Your task to perform on an android device: Show me productivity apps on the Play Store Image 0: 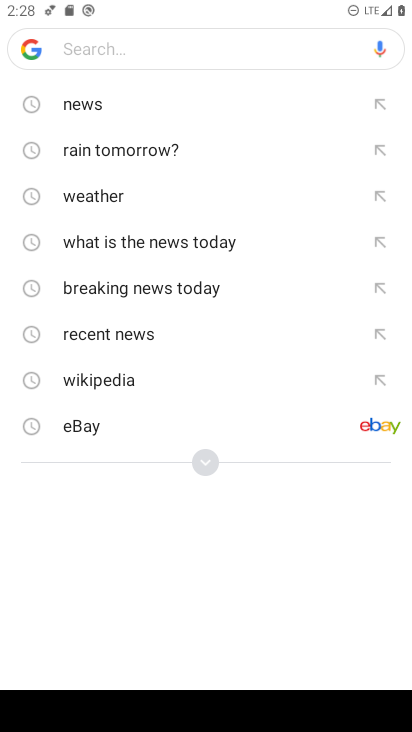
Step 0: press home button
Your task to perform on an android device: Show me productivity apps on the Play Store Image 1: 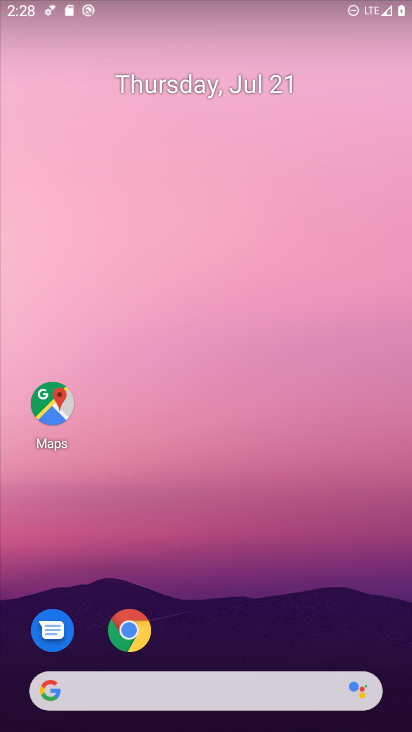
Step 1: drag from (301, 580) to (204, 0)
Your task to perform on an android device: Show me productivity apps on the Play Store Image 2: 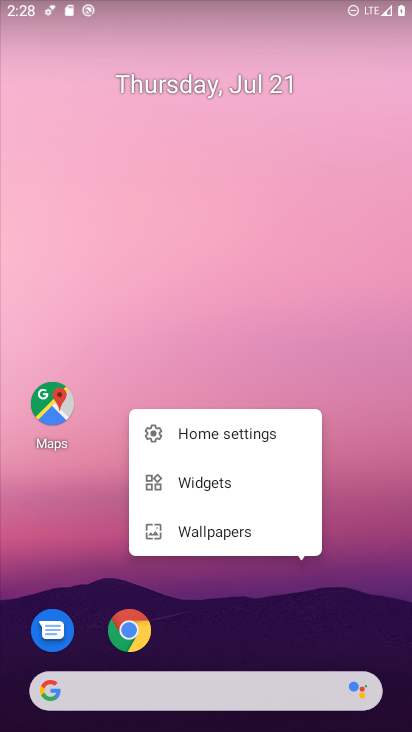
Step 2: drag from (297, 355) to (218, 34)
Your task to perform on an android device: Show me productivity apps on the Play Store Image 3: 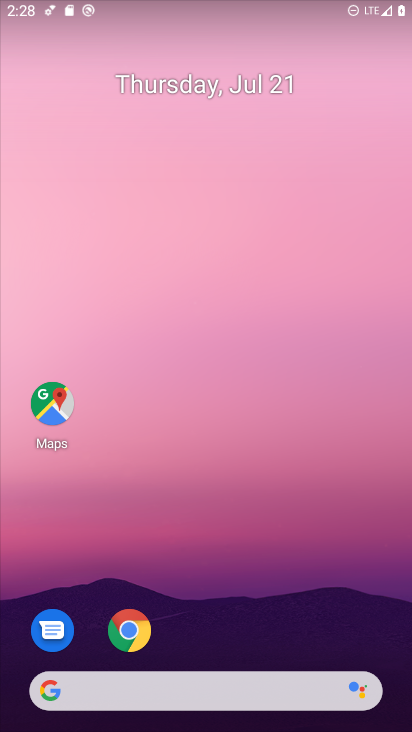
Step 3: drag from (345, 656) to (295, 269)
Your task to perform on an android device: Show me productivity apps on the Play Store Image 4: 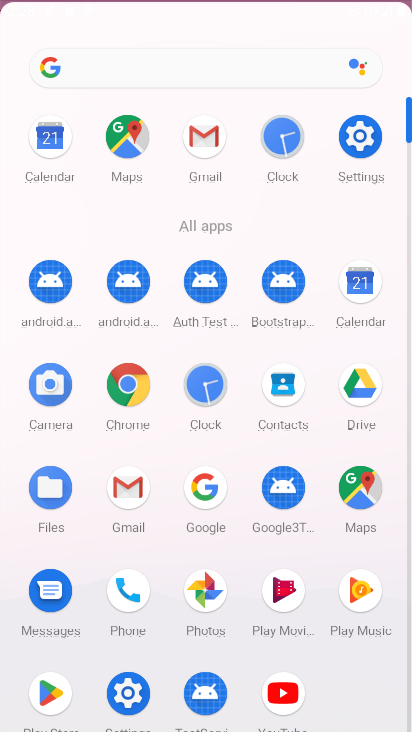
Step 4: drag from (228, 672) to (292, 87)
Your task to perform on an android device: Show me productivity apps on the Play Store Image 5: 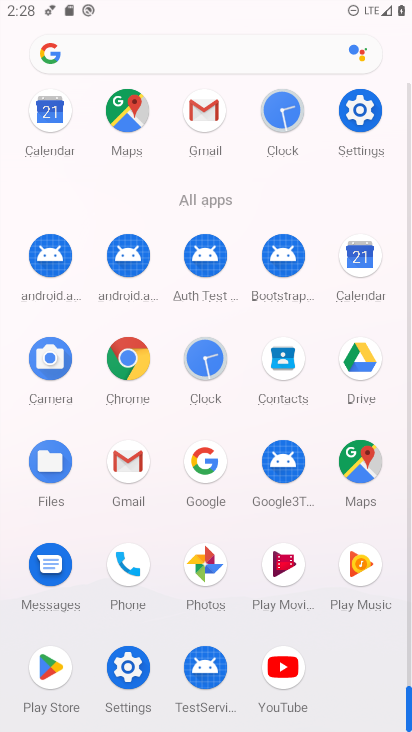
Step 5: click (39, 676)
Your task to perform on an android device: Show me productivity apps on the Play Store Image 6: 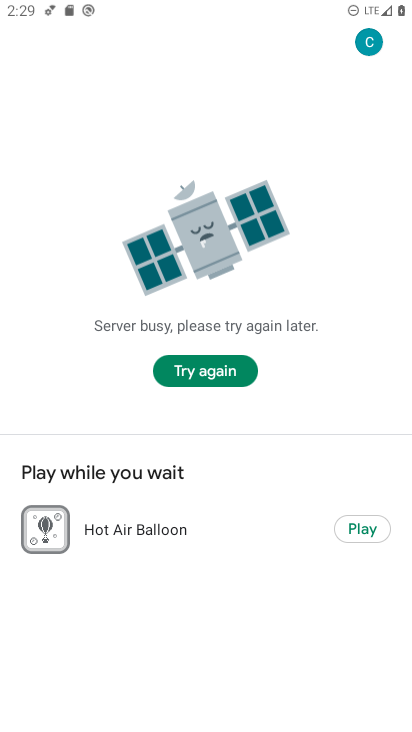
Step 6: click (223, 373)
Your task to perform on an android device: Show me productivity apps on the Play Store Image 7: 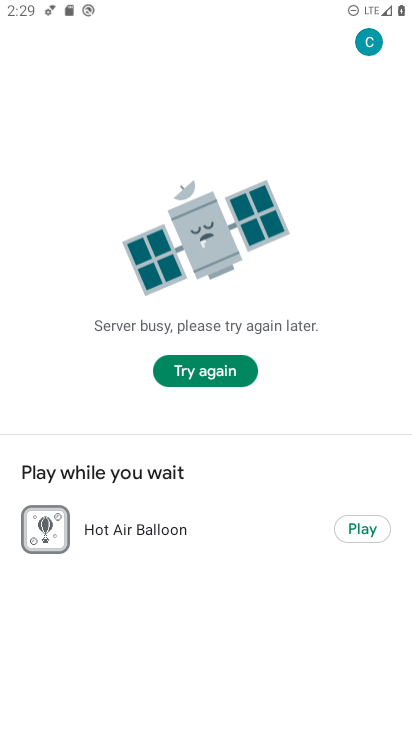
Step 7: click (219, 372)
Your task to perform on an android device: Show me productivity apps on the Play Store Image 8: 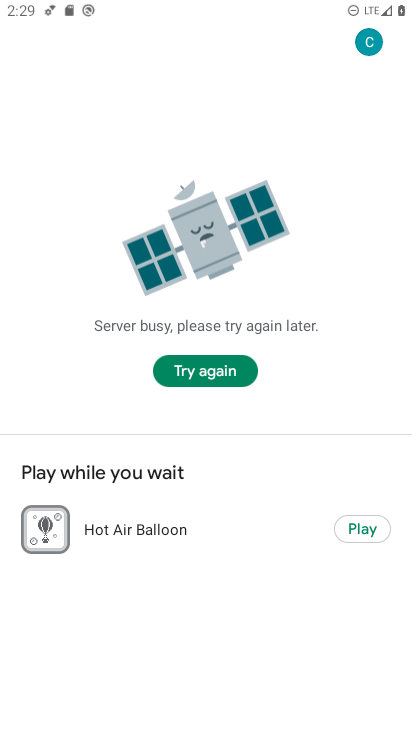
Step 8: task complete